Your task to perform on an android device: Open Youtube and go to the subscriptions tab Image 0: 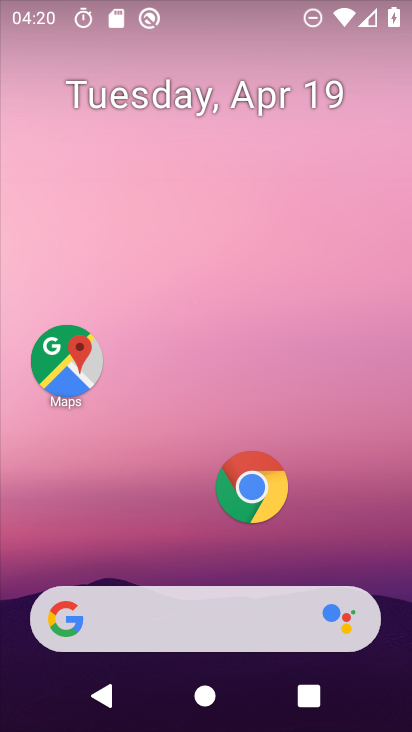
Step 0: click (86, 367)
Your task to perform on an android device: Open Youtube and go to the subscriptions tab Image 1: 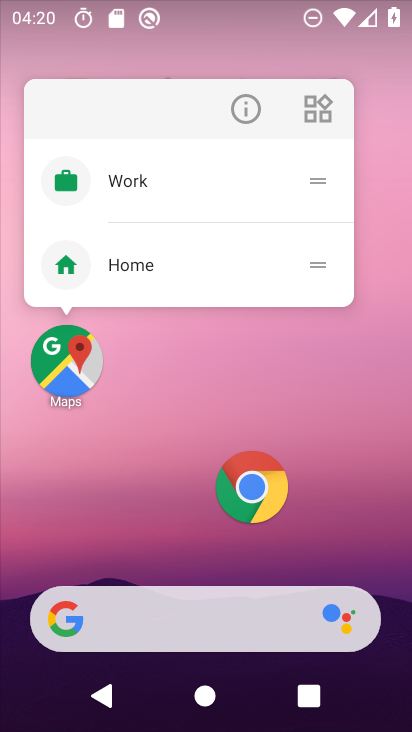
Step 1: click (48, 355)
Your task to perform on an android device: Open Youtube and go to the subscriptions tab Image 2: 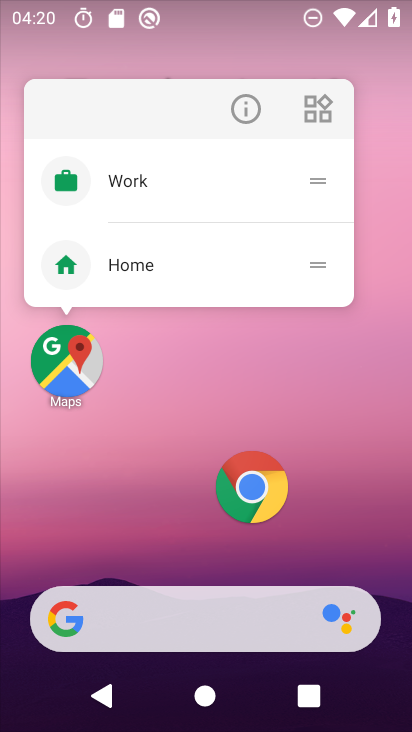
Step 2: click (73, 344)
Your task to perform on an android device: Open Youtube and go to the subscriptions tab Image 3: 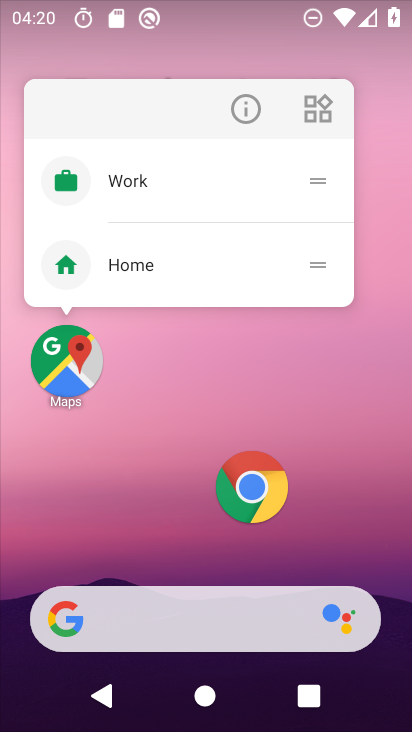
Step 3: click (187, 460)
Your task to perform on an android device: Open Youtube and go to the subscriptions tab Image 4: 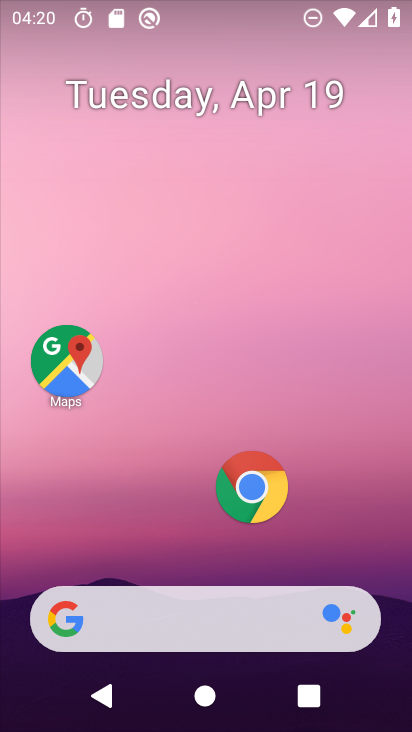
Step 4: drag from (186, 435) to (239, 1)
Your task to perform on an android device: Open Youtube and go to the subscriptions tab Image 5: 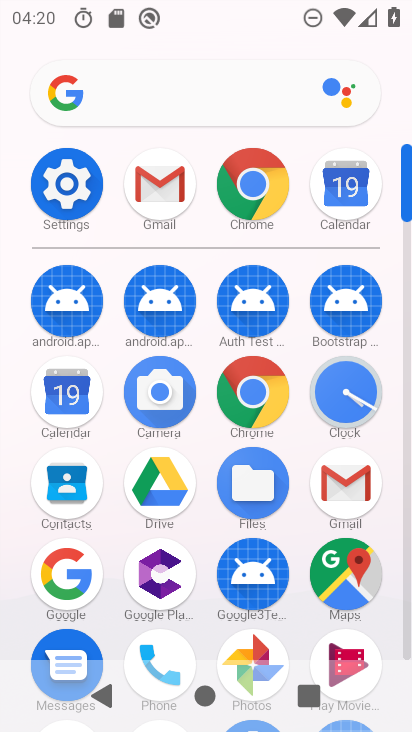
Step 5: drag from (202, 603) to (260, 44)
Your task to perform on an android device: Open Youtube and go to the subscriptions tab Image 6: 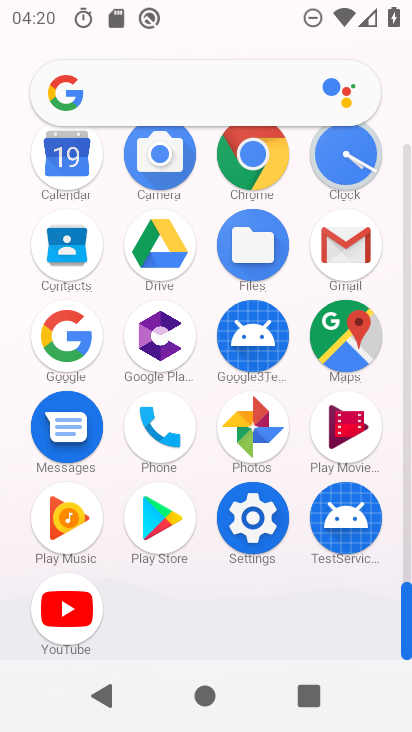
Step 6: click (67, 586)
Your task to perform on an android device: Open Youtube and go to the subscriptions tab Image 7: 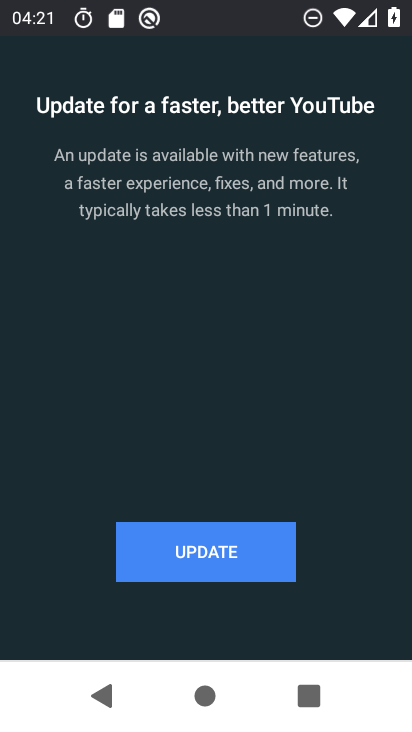
Step 7: click (230, 552)
Your task to perform on an android device: Open Youtube and go to the subscriptions tab Image 8: 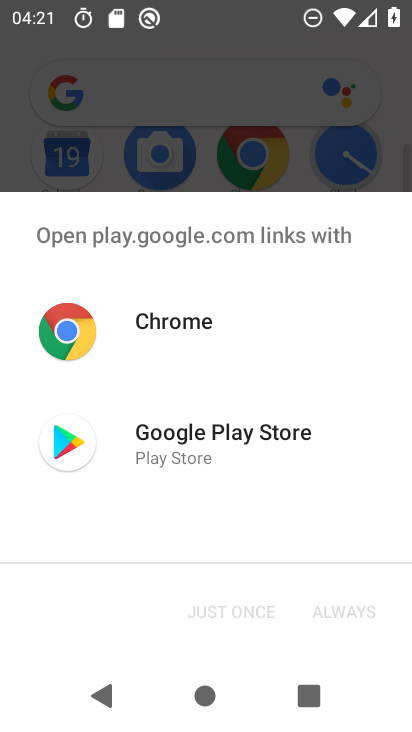
Step 8: click (218, 434)
Your task to perform on an android device: Open Youtube and go to the subscriptions tab Image 9: 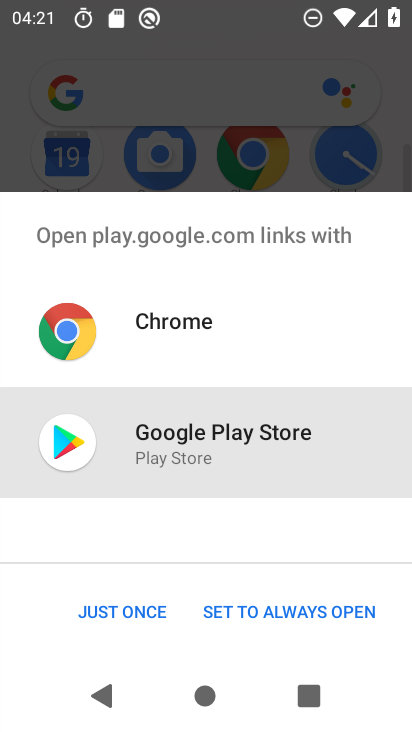
Step 9: click (134, 613)
Your task to perform on an android device: Open Youtube and go to the subscriptions tab Image 10: 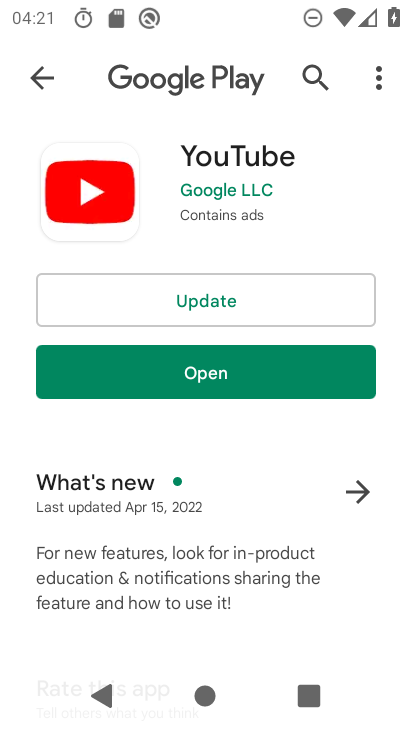
Step 10: click (211, 306)
Your task to perform on an android device: Open Youtube and go to the subscriptions tab Image 11: 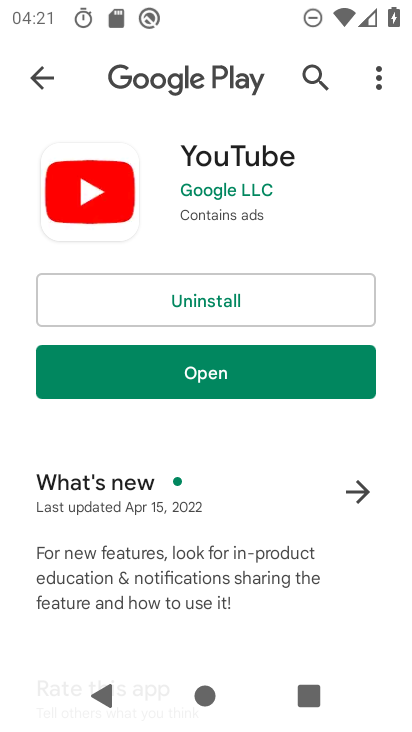
Step 11: click (211, 380)
Your task to perform on an android device: Open Youtube and go to the subscriptions tab Image 12: 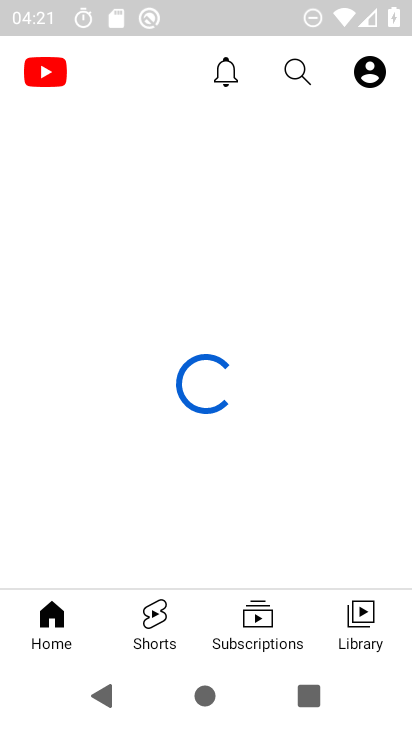
Step 12: click (260, 602)
Your task to perform on an android device: Open Youtube and go to the subscriptions tab Image 13: 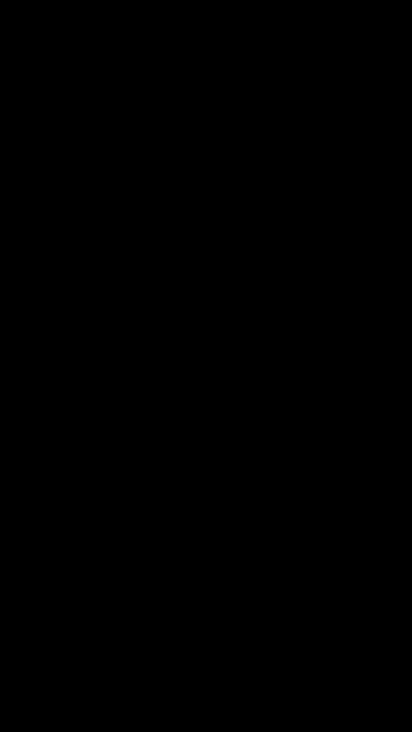
Step 13: task complete